Your task to perform on an android device: open a bookmark in the chrome app Image 0: 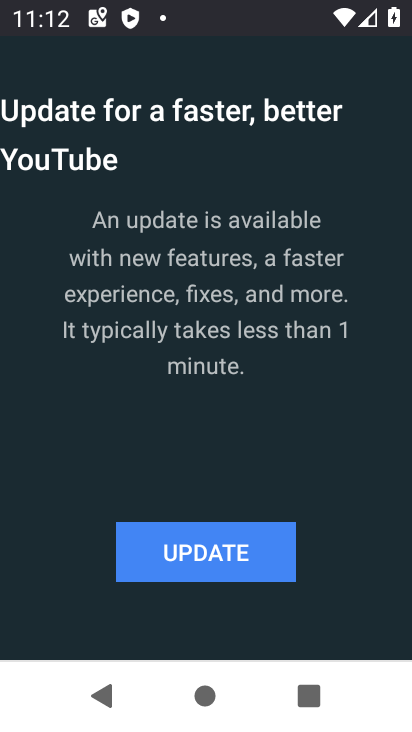
Step 0: press home button
Your task to perform on an android device: open a bookmark in the chrome app Image 1: 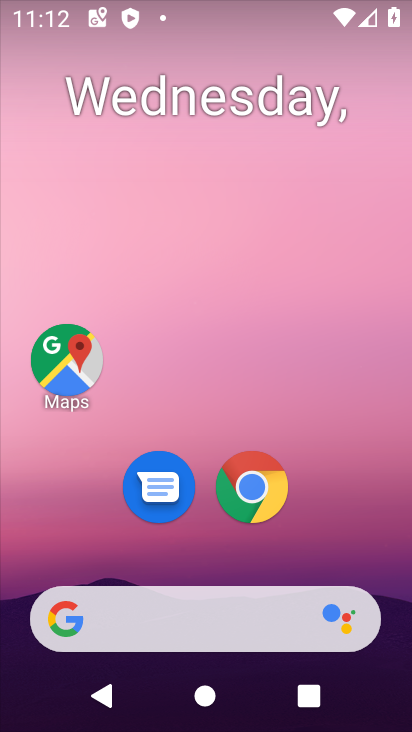
Step 1: click (251, 490)
Your task to perform on an android device: open a bookmark in the chrome app Image 2: 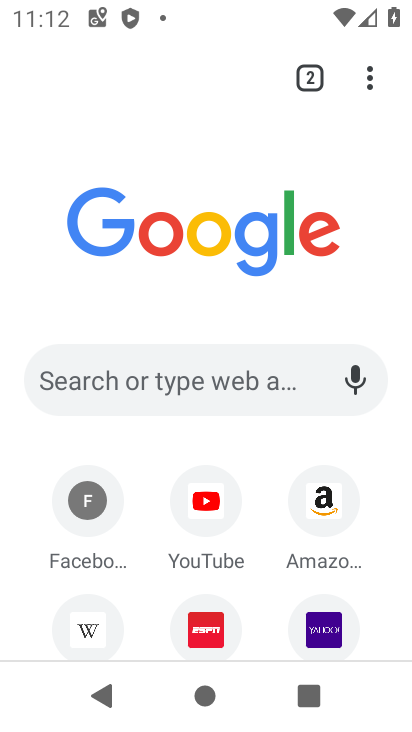
Step 2: click (370, 80)
Your task to perform on an android device: open a bookmark in the chrome app Image 3: 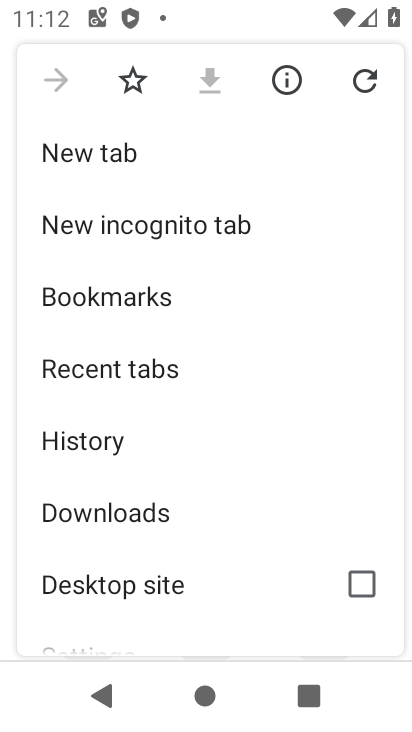
Step 3: click (155, 304)
Your task to perform on an android device: open a bookmark in the chrome app Image 4: 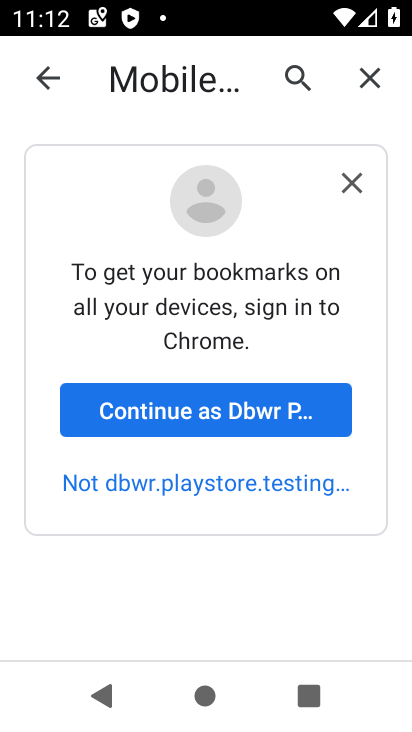
Step 4: click (185, 412)
Your task to perform on an android device: open a bookmark in the chrome app Image 5: 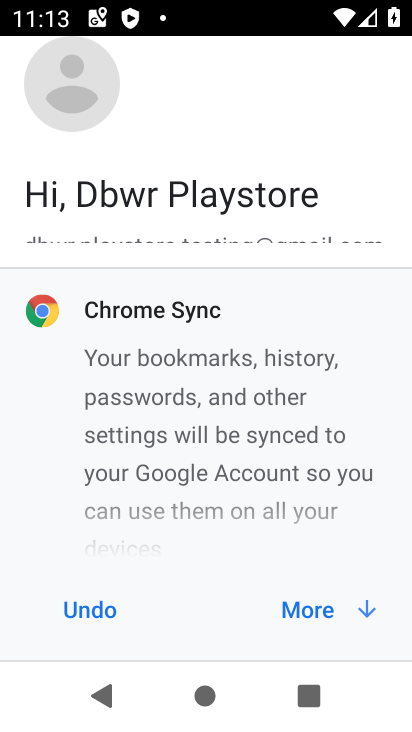
Step 5: click (299, 620)
Your task to perform on an android device: open a bookmark in the chrome app Image 6: 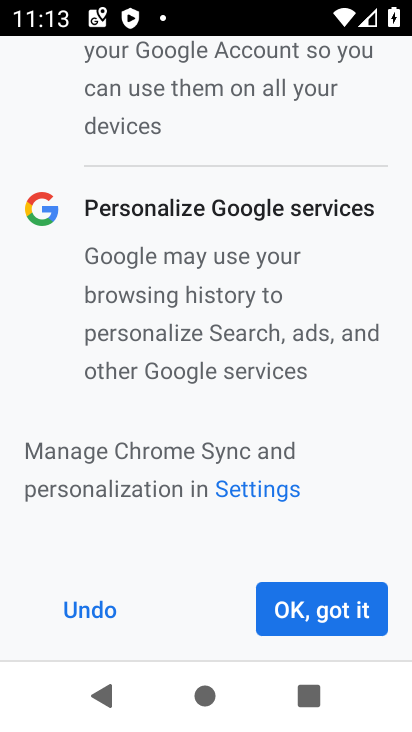
Step 6: click (299, 620)
Your task to perform on an android device: open a bookmark in the chrome app Image 7: 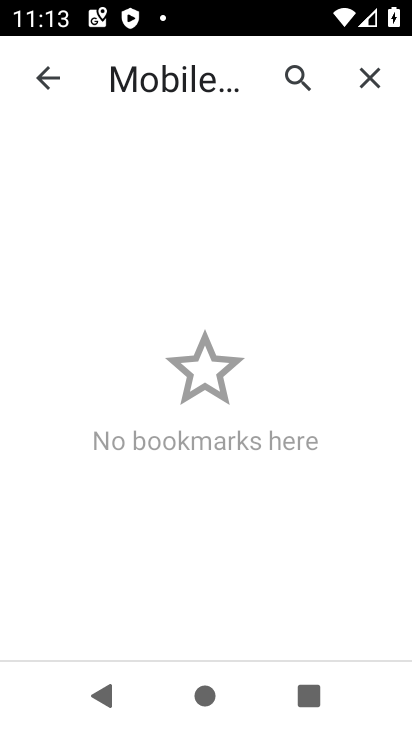
Step 7: task complete